Your task to perform on an android device: turn on improve location accuracy Image 0: 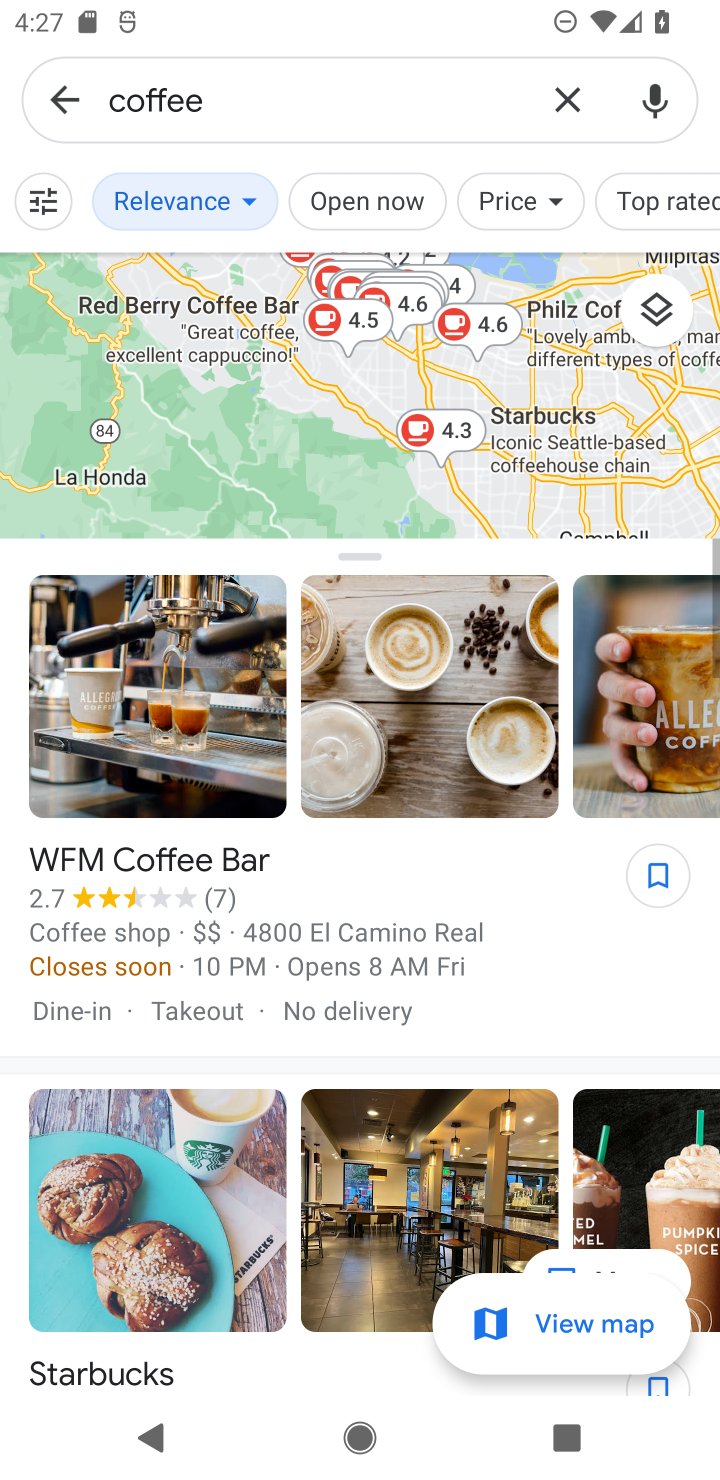
Step 0: press home button
Your task to perform on an android device: turn on improve location accuracy Image 1: 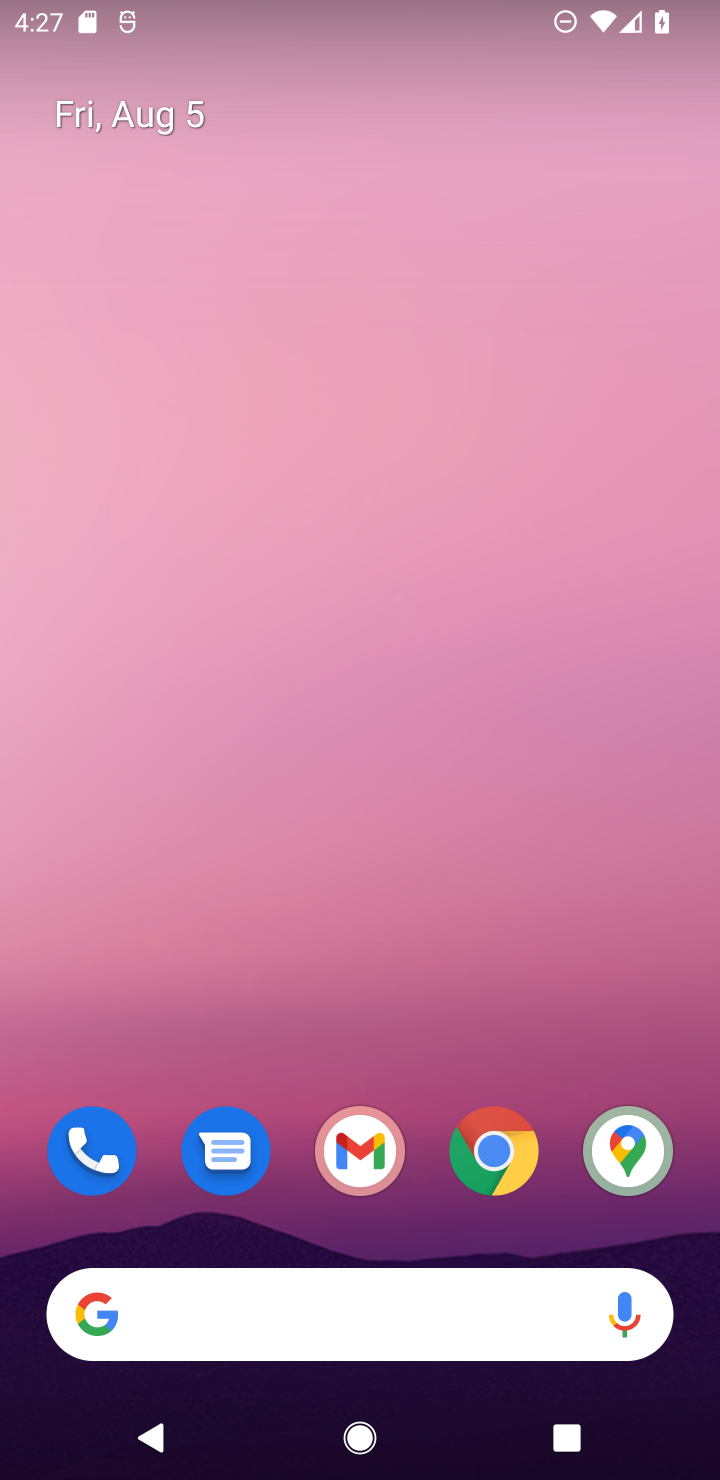
Step 1: drag from (418, 804) to (441, 159)
Your task to perform on an android device: turn on improve location accuracy Image 2: 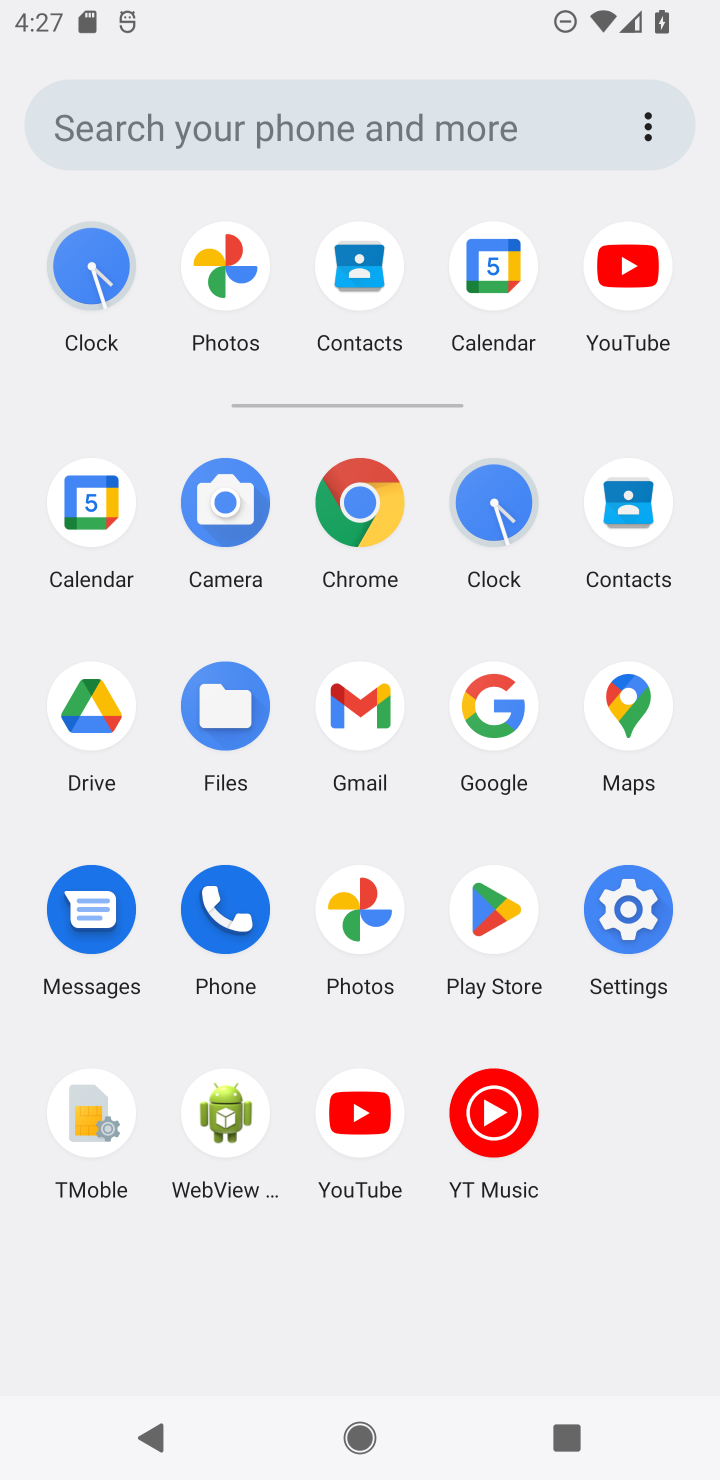
Step 2: click (623, 937)
Your task to perform on an android device: turn on improve location accuracy Image 3: 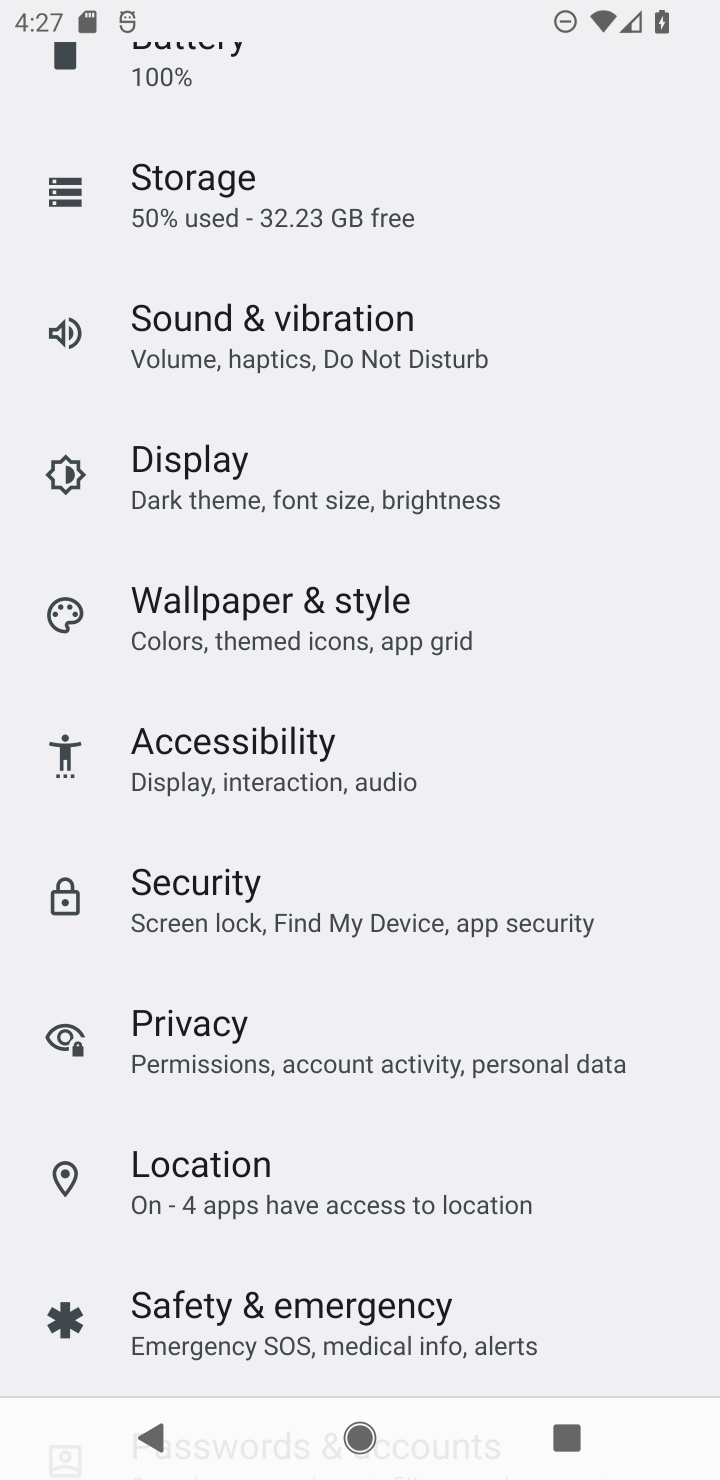
Step 3: click (219, 1163)
Your task to perform on an android device: turn on improve location accuracy Image 4: 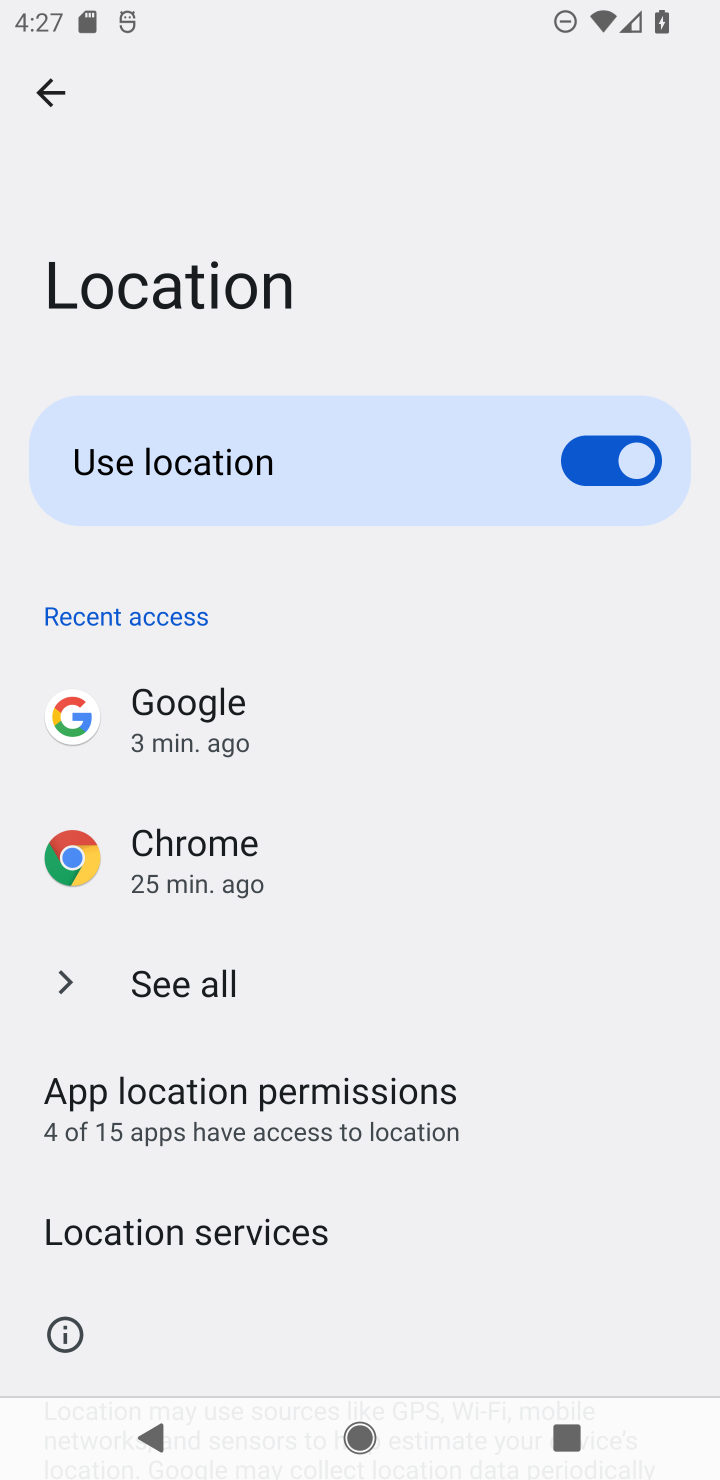
Step 4: click (229, 1213)
Your task to perform on an android device: turn on improve location accuracy Image 5: 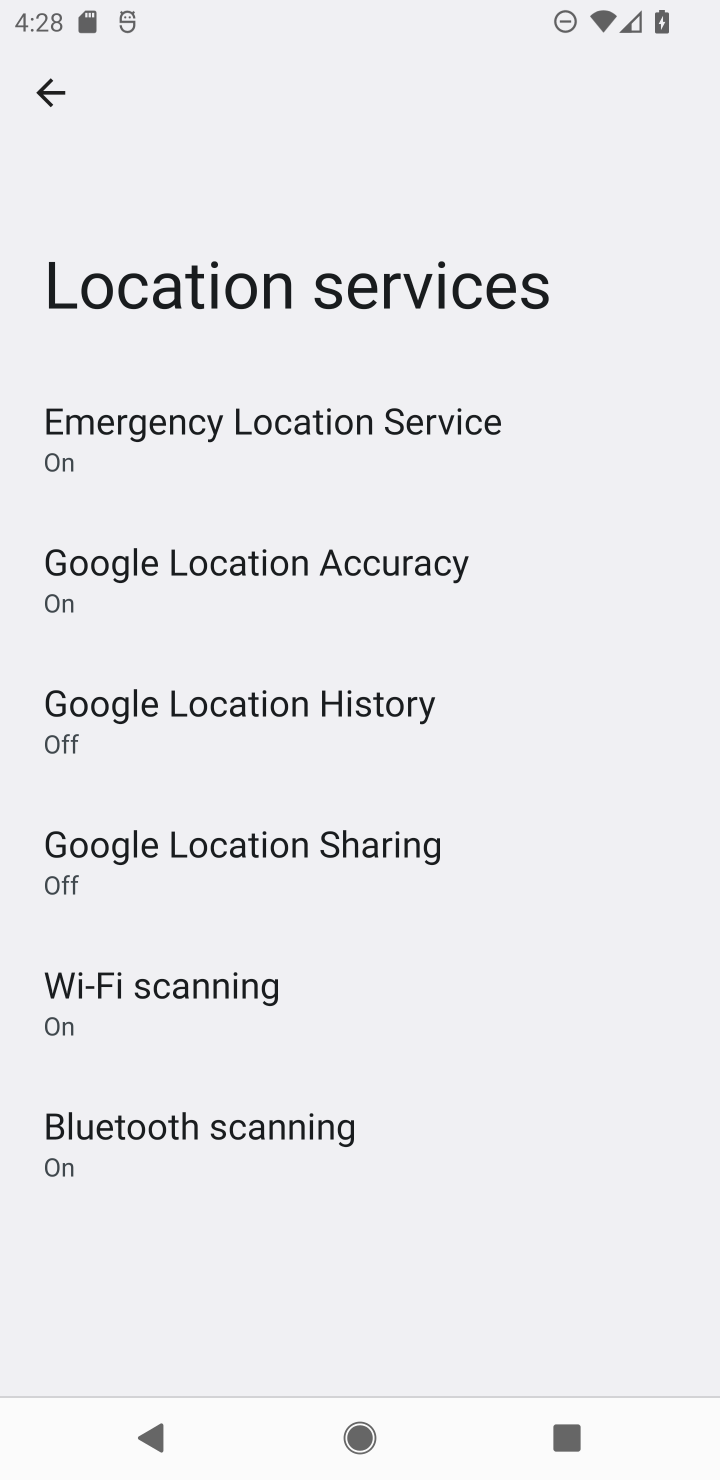
Step 5: click (392, 613)
Your task to perform on an android device: turn on improve location accuracy Image 6: 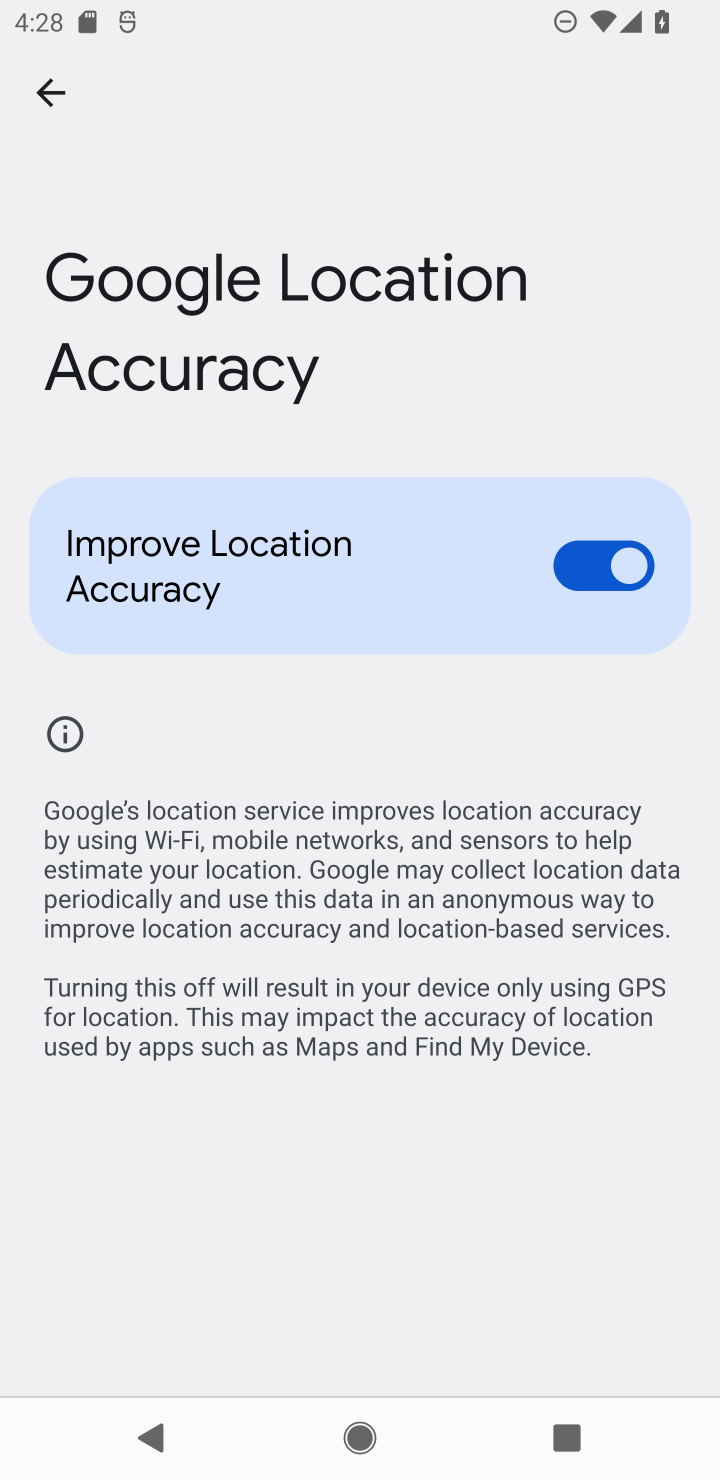
Step 6: task complete